Your task to perform on an android device: Open battery settings Image 0: 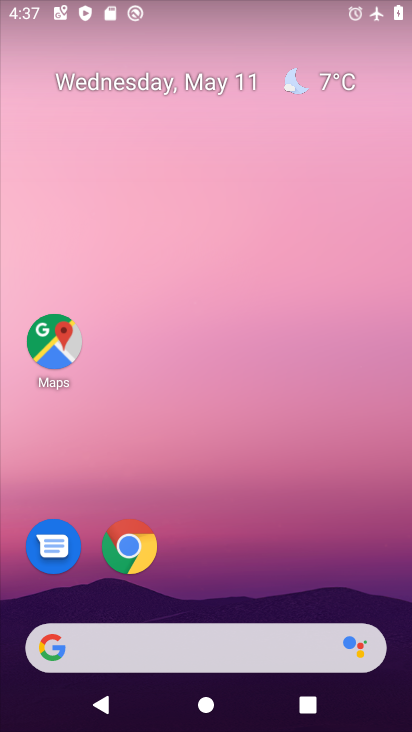
Step 0: drag from (208, 641) to (188, 13)
Your task to perform on an android device: Open battery settings Image 1: 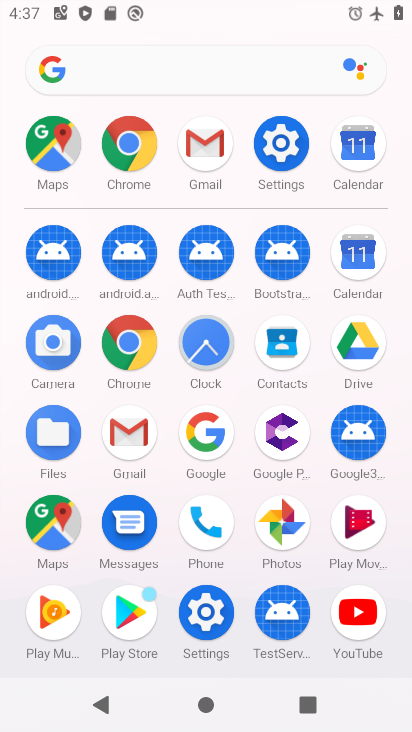
Step 1: click (286, 134)
Your task to perform on an android device: Open battery settings Image 2: 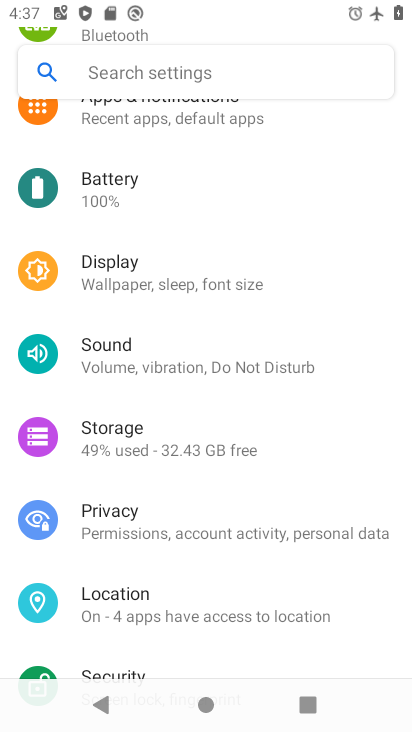
Step 2: click (119, 178)
Your task to perform on an android device: Open battery settings Image 3: 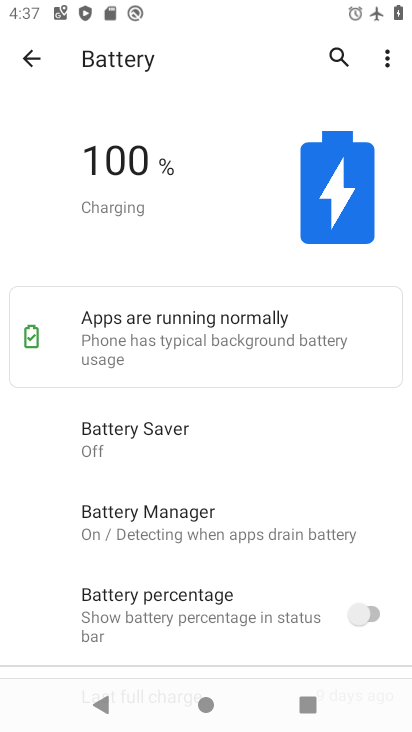
Step 3: task complete